Your task to perform on an android device: Open Google Maps and go to "Timeline" Image 0: 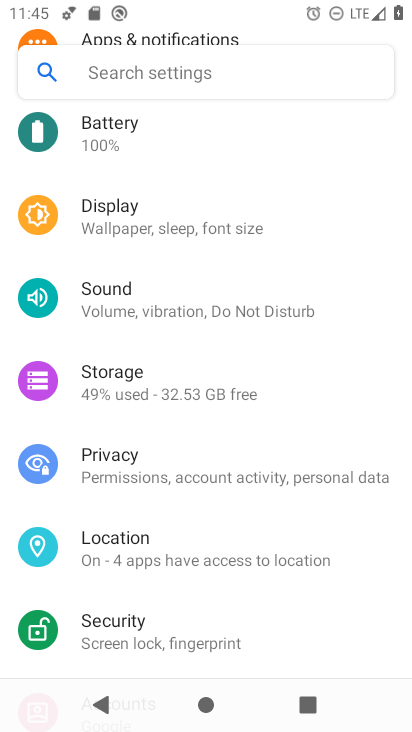
Step 0: press home button
Your task to perform on an android device: Open Google Maps and go to "Timeline" Image 1: 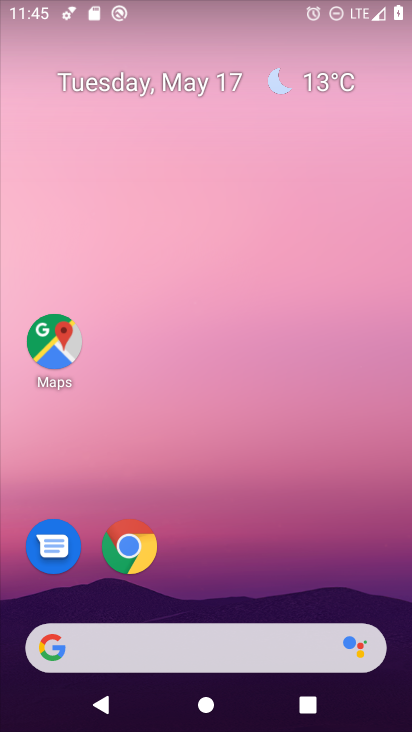
Step 1: click (54, 344)
Your task to perform on an android device: Open Google Maps and go to "Timeline" Image 2: 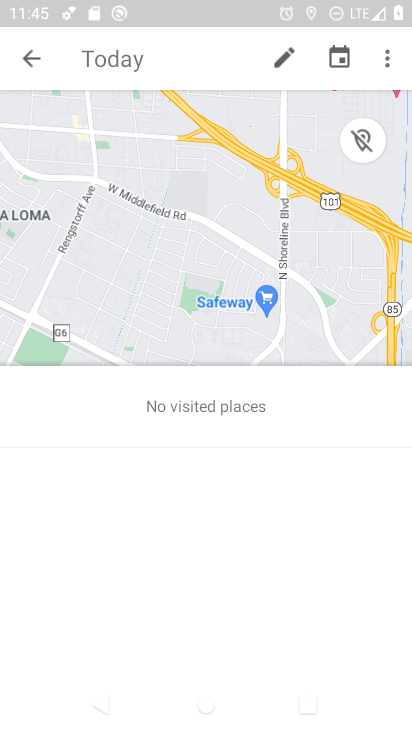
Step 2: task complete